Your task to perform on an android device: toggle sleep mode Image 0: 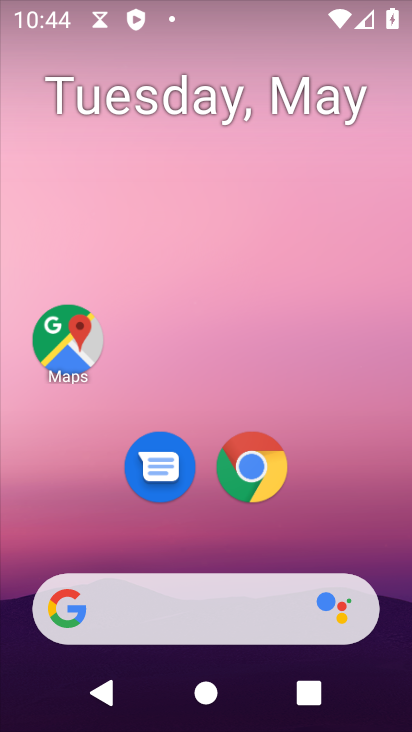
Step 0: drag from (399, 564) to (248, 151)
Your task to perform on an android device: toggle sleep mode Image 1: 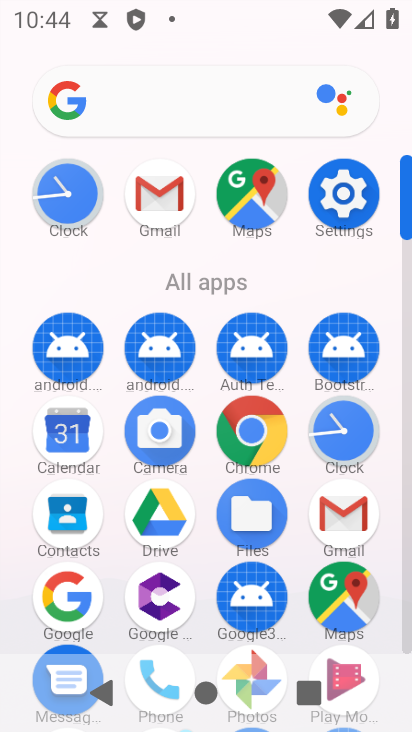
Step 1: click (355, 211)
Your task to perform on an android device: toggle sleep mode Image 2: 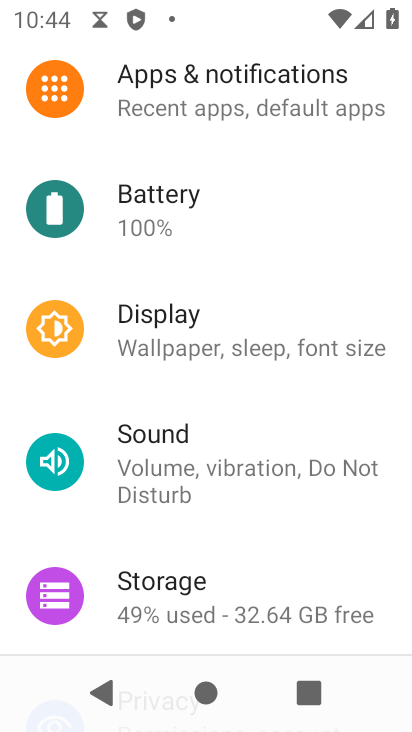
Step 2: click (251, 323)
Your task to perform on an android device: toggle sleep mode Image 3: 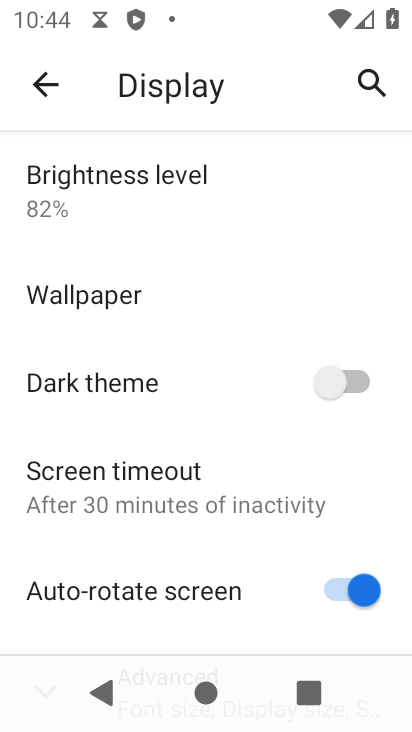
Step 3: drag from (232, 613) to (233, 220)
Your task to perform on an android device: toggle sleep mode Image 4: 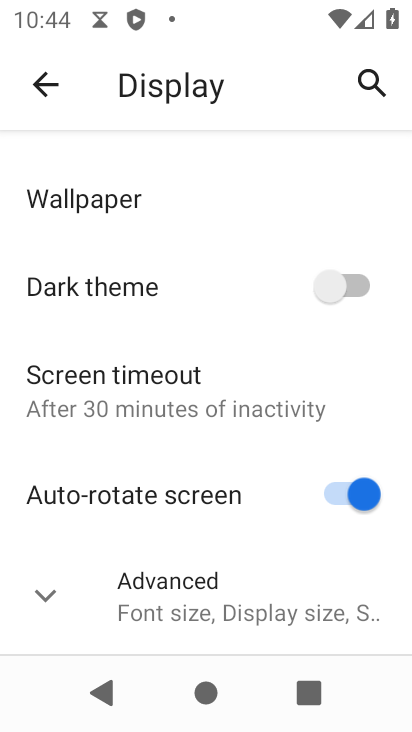
Step 4: click (214, 577)
Your task to perform on an android device: toggle sleep mode Image 5: 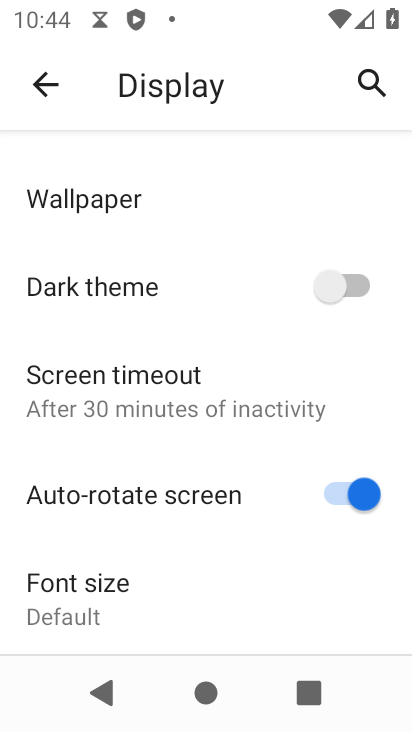
Step 5: task complete